Your task to perform on an android device: Open Google Chrome and click the shortcut for Amazon.com Image 0: 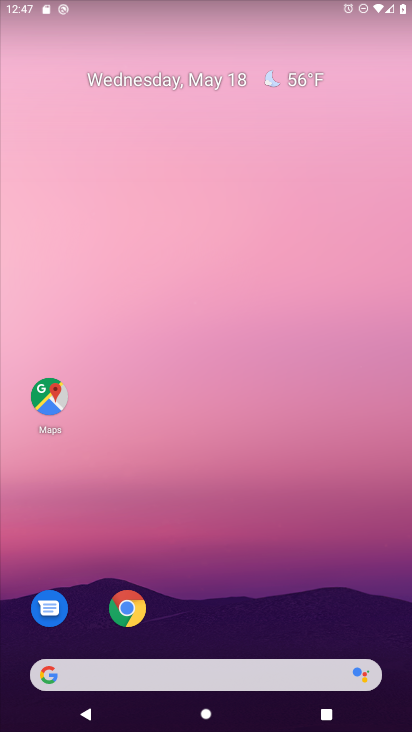
Step 0: drag from (245, 694) to (146, 173)
Your task to perform on an android device: Open Google Chrome and click the shortcut for Amazon.com Image 1: 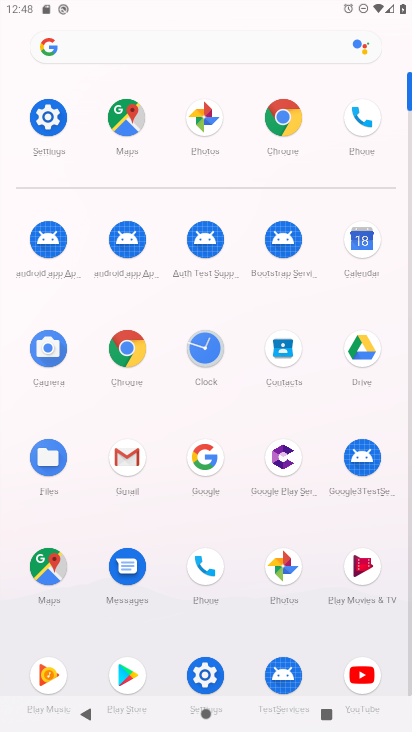
Step 1: click (273, 126)
Your task to perform on an android device: Open Google Chrome and click the shortcut for Amazon.com Image 2: 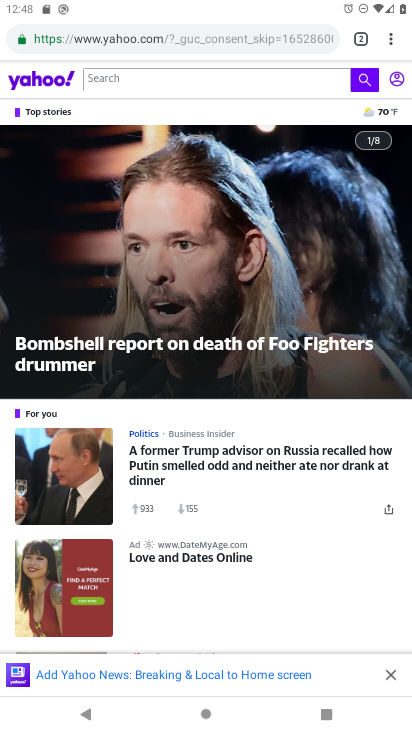
Step 2: click (357, 39)
Your task to perform on an android device: Open Google Chrome and click the shortcut for Amazon.com Image 3: 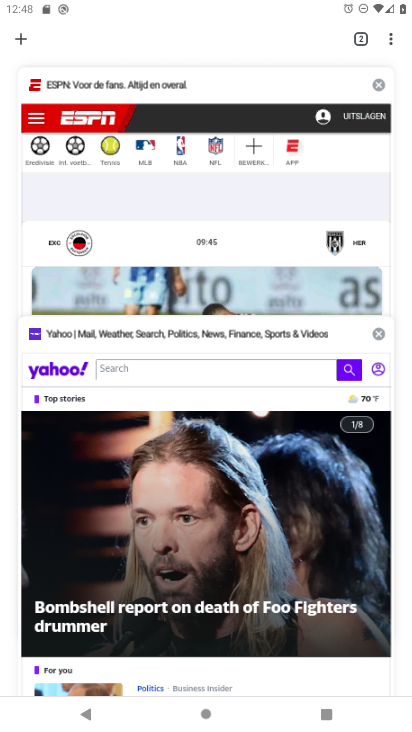
Step 3: click (26, 35)
Your task to perform on an android device: Open Google Chrome and click the shortcut for Amazon.com Image 4: 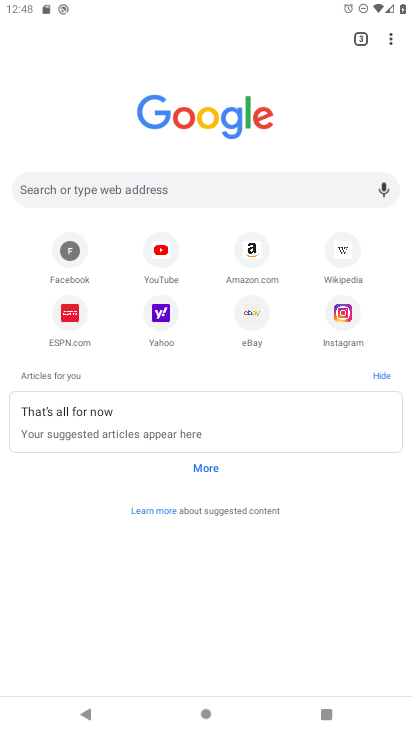
Step 4: click (249, 251)
Your task to perform on an android device: Open Google Chrome and click the shortcut for Amazon.com Image 5: 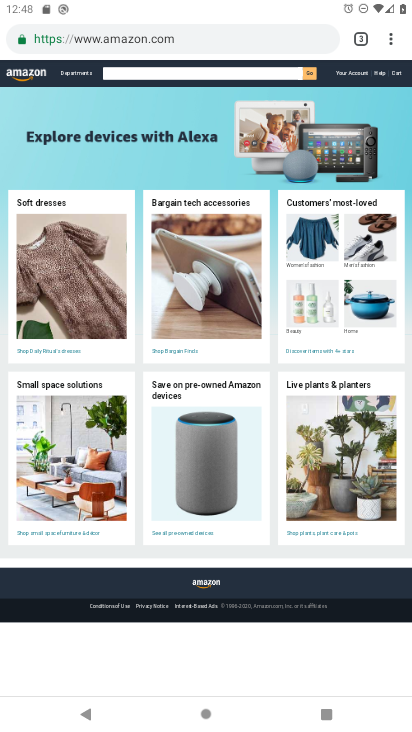
Step 5: task complete